Your task to perform on an android device: Show me popular games on the Play Store Image 0: 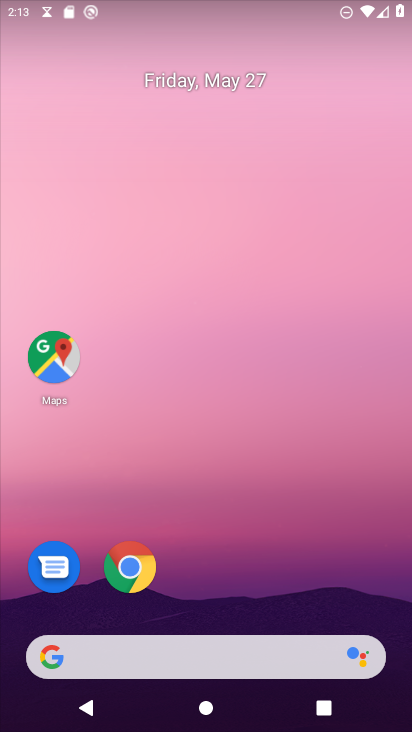
Step 0: drag from (236, 602) to (208, 111)
Your task to perform on an android device: Show me popular games on the Play Store Image 1: 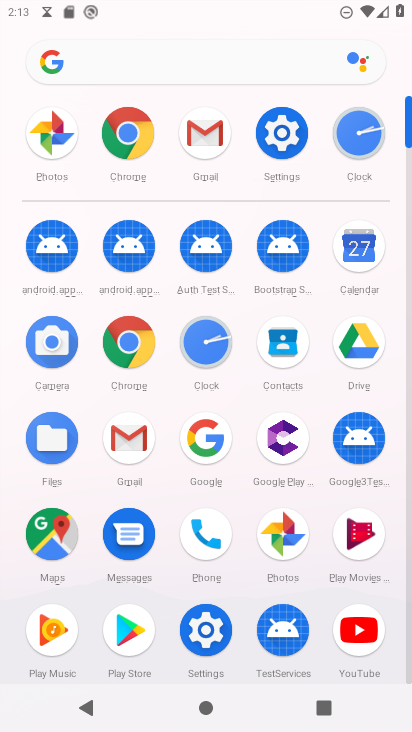
Step 1: click (130, 621)
Your task to perform on an android device: Show me popular games on the Play Store Image 2: 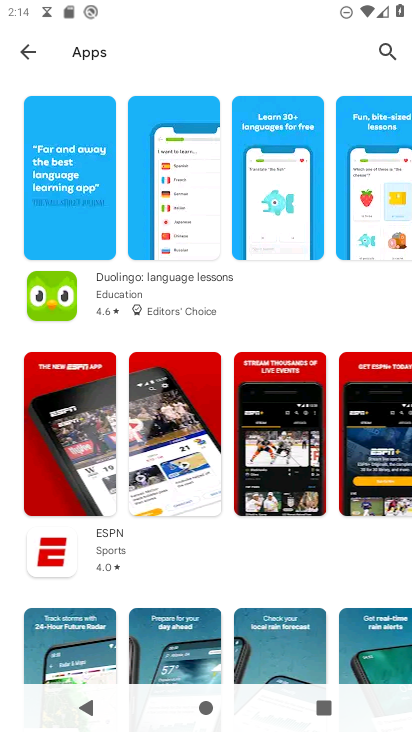
Step 2: task complete